Your task to perform on an android device: Go to Yahoo.com Image 0: 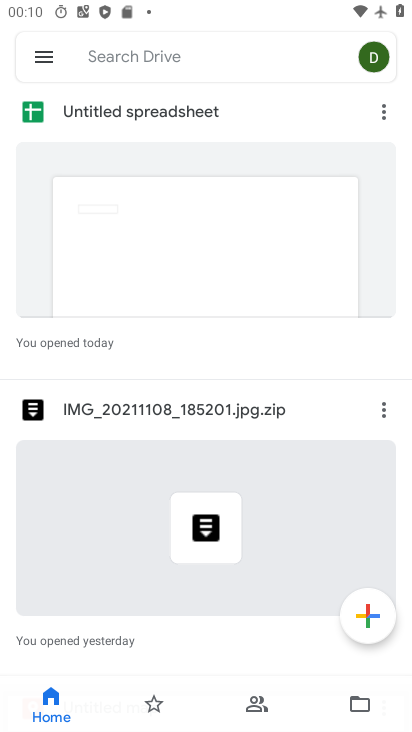
Step 0: press home button
Your task to perform on an android device: Go to Yahoo.com Image 1: 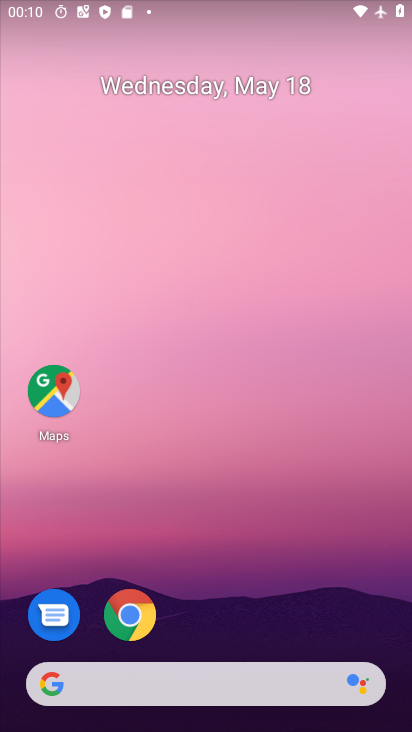
Step 1: click (149, 615)
Your task to perform on an android device: Go to Yahoo.com Image 2: 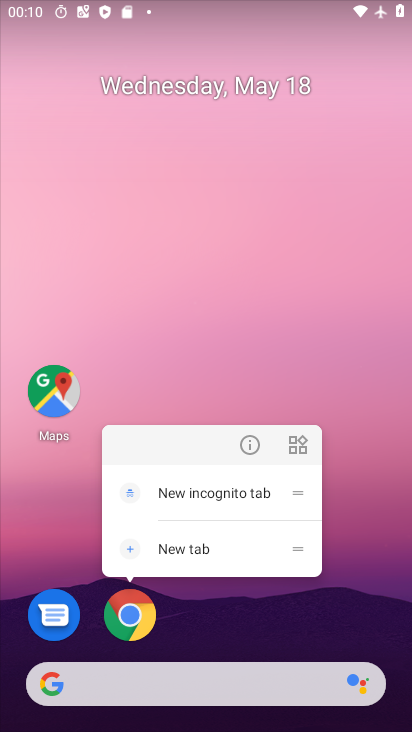
Step 2: click (144, 608)
Your task to perform on an android device: Go to Yahoo.com Image 3: 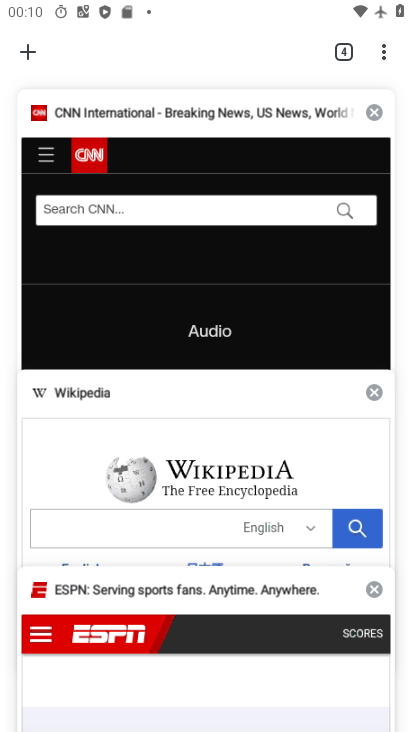
Step 3: click (17, 51)
Your task to perform on an android device: Go to Yahoo.com Image 4: 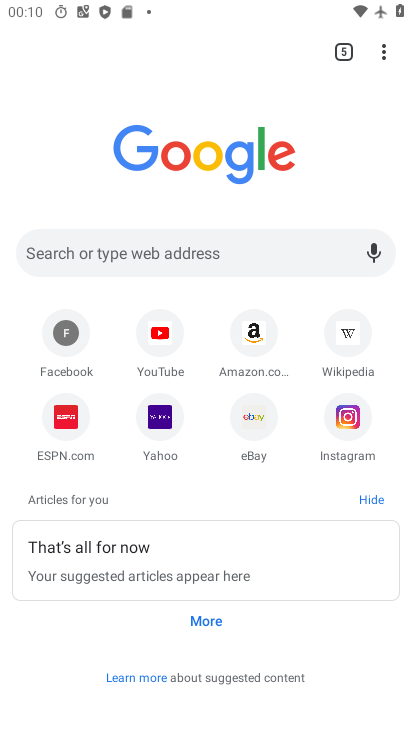
Step 4: click (164, 413)
Your task to perform on an android device: Go to Yahoo.com Image 5: 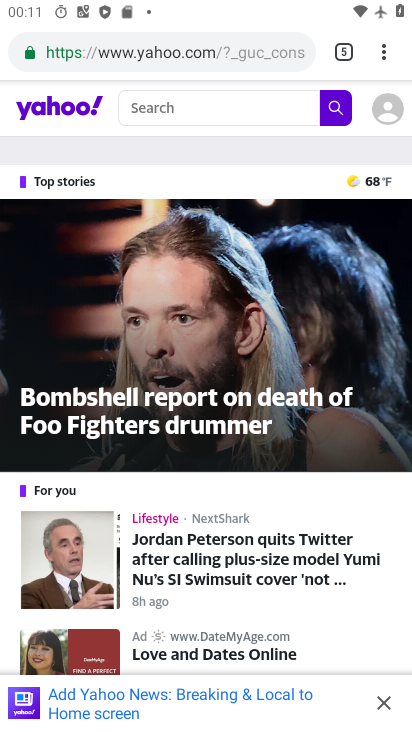
Step 5: task complete